Your task to perform on an android device: Open calendar and show me the third week of next month Image 0: 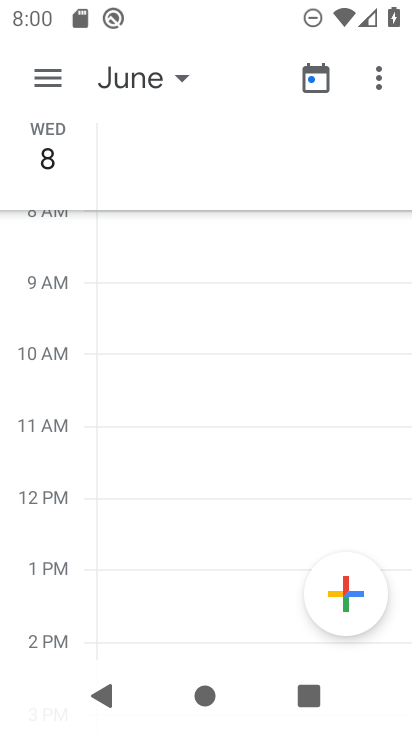
Step 0: press home button
Your task to perform on an android device: Open calendar and show me the third week of next month Image 1: 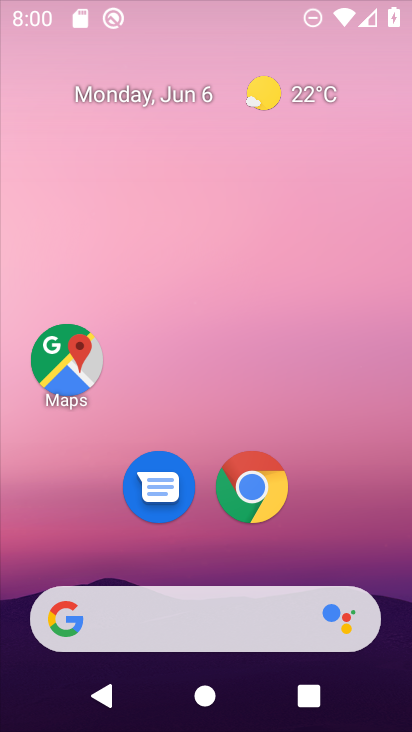
Step 1: drag from (387, 631) to (242, 37)
Your task to perform on an android device: Open calendar and show me the third week of next month Image 2: 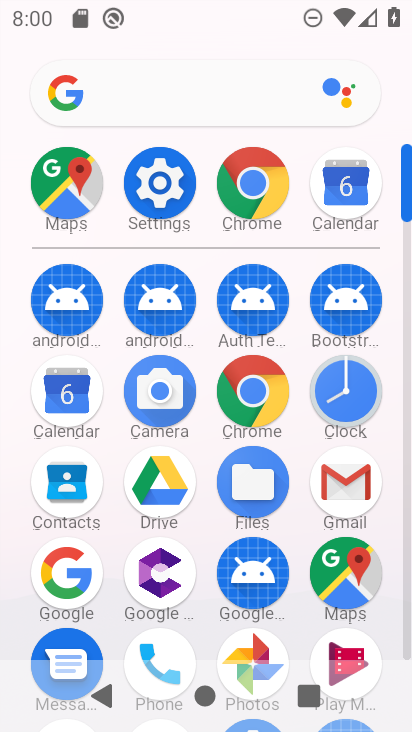
Step 2: click (71, 378)
Your task to perform on an android device: Open calendar and show me the third week of next month Image 3: 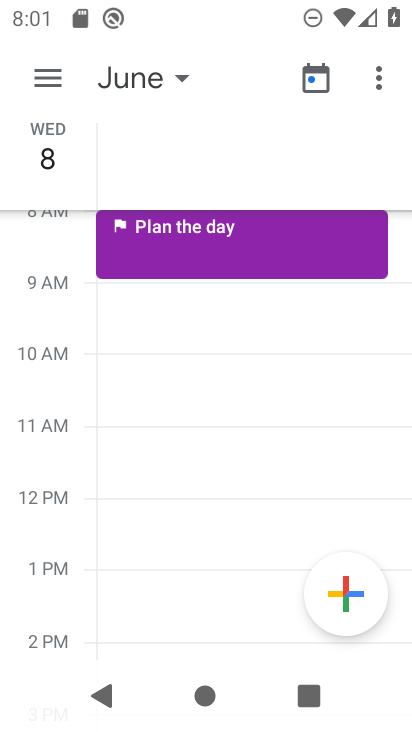
Step 3: click (143, 76)
Your task to perform on an android device: Open calendar and show me the third week of next month Image 4: 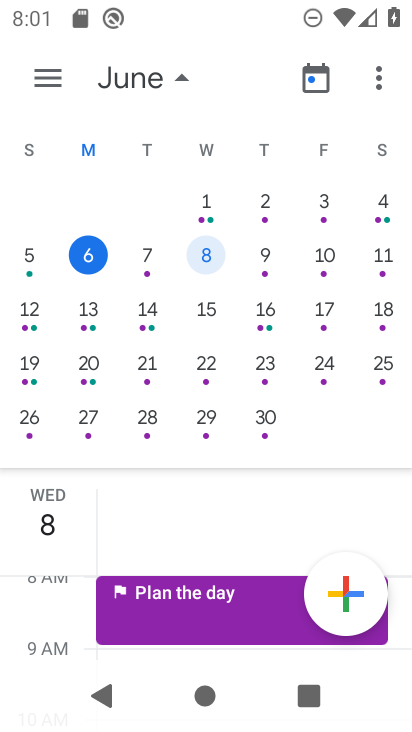
Step 4: drag from (383, 303) to (43, 282)
Your task to perform on an android device: Open calendar and show me the third week of next month Image 5: 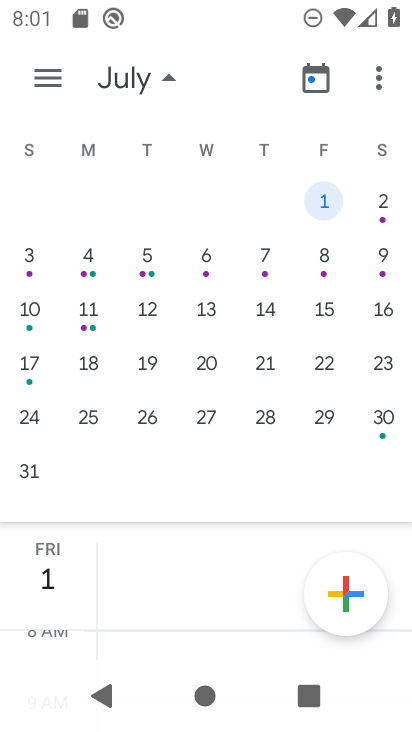
Step 5: click (30, 361)
Your task to perform on an android device: Open calendar and show me the third week of next month Image 6: 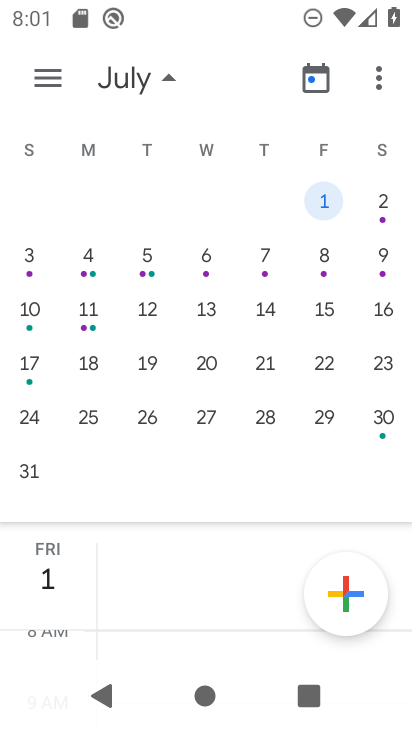
Step 6: click (37, 363)
Your task to perform on an android device: Open calendar and show me the third week of next month Image 7: 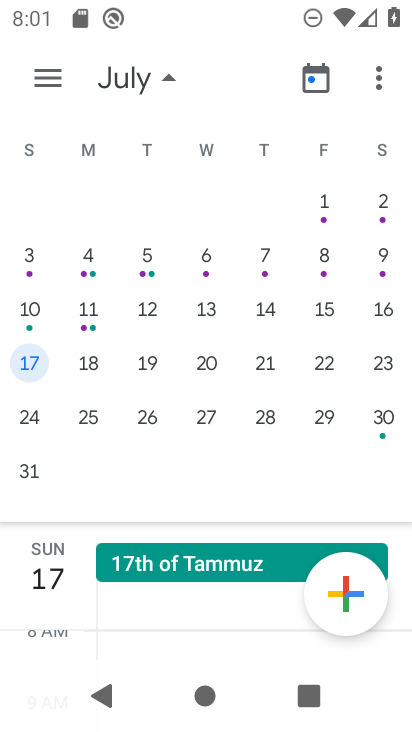
Step 7: task complete